Your task to perform on an android device: open app "Spotify: Music and Podcasts" Image 0: 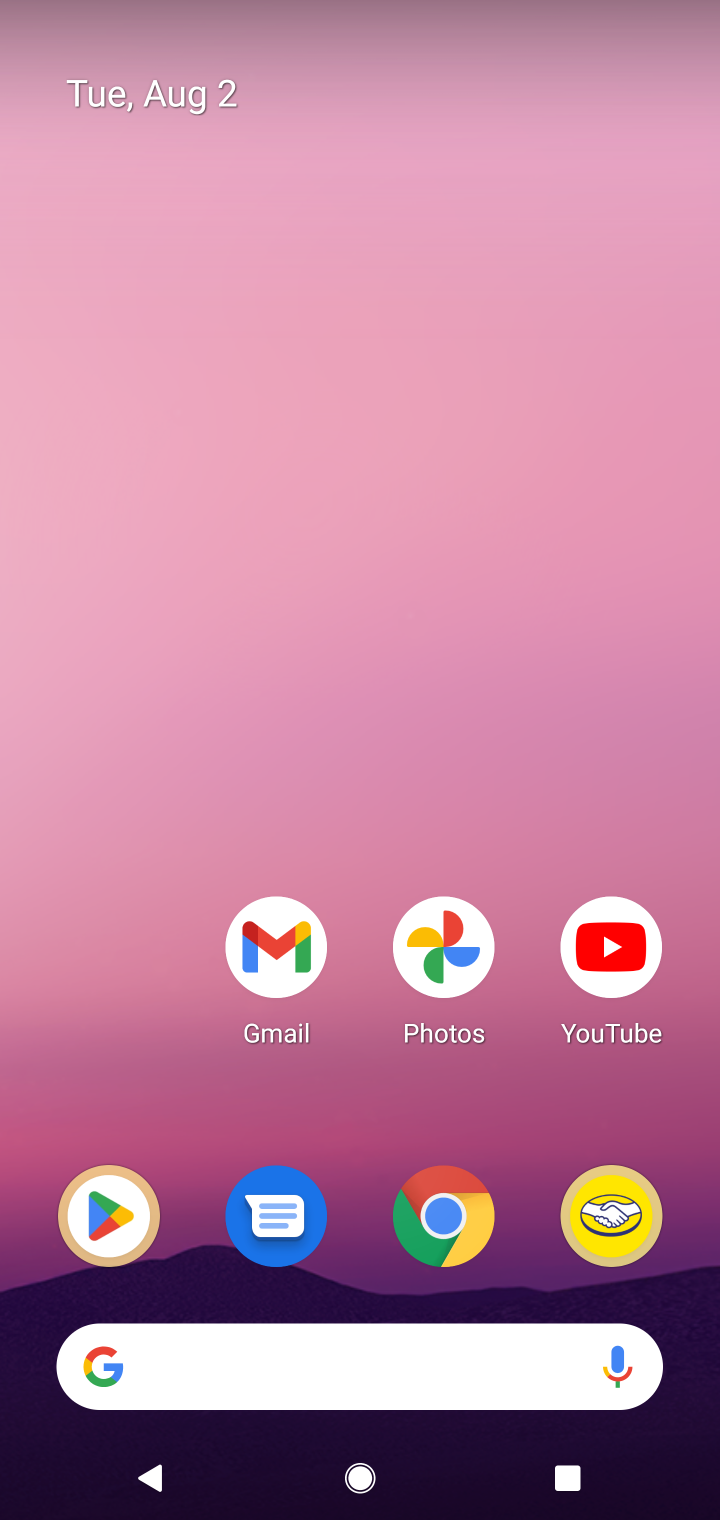
Step 0: click (129, 1224)
Your task to perform on an android device: open app "Spotify: Music and Podcasts" Image 1: 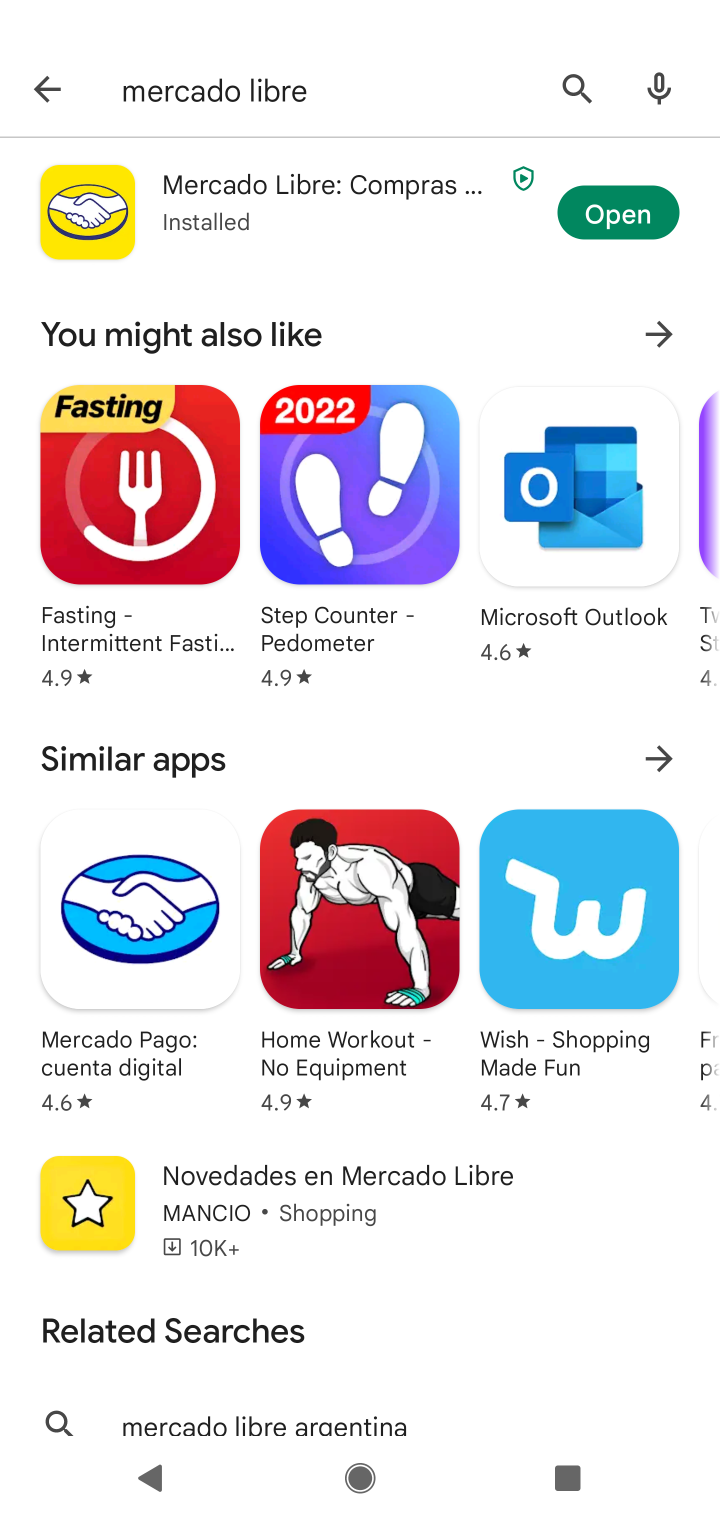
Step 1: click (575, 78)
Your task to perform on an android device: open app "Spotify: Music and Podcasts" Image 2: 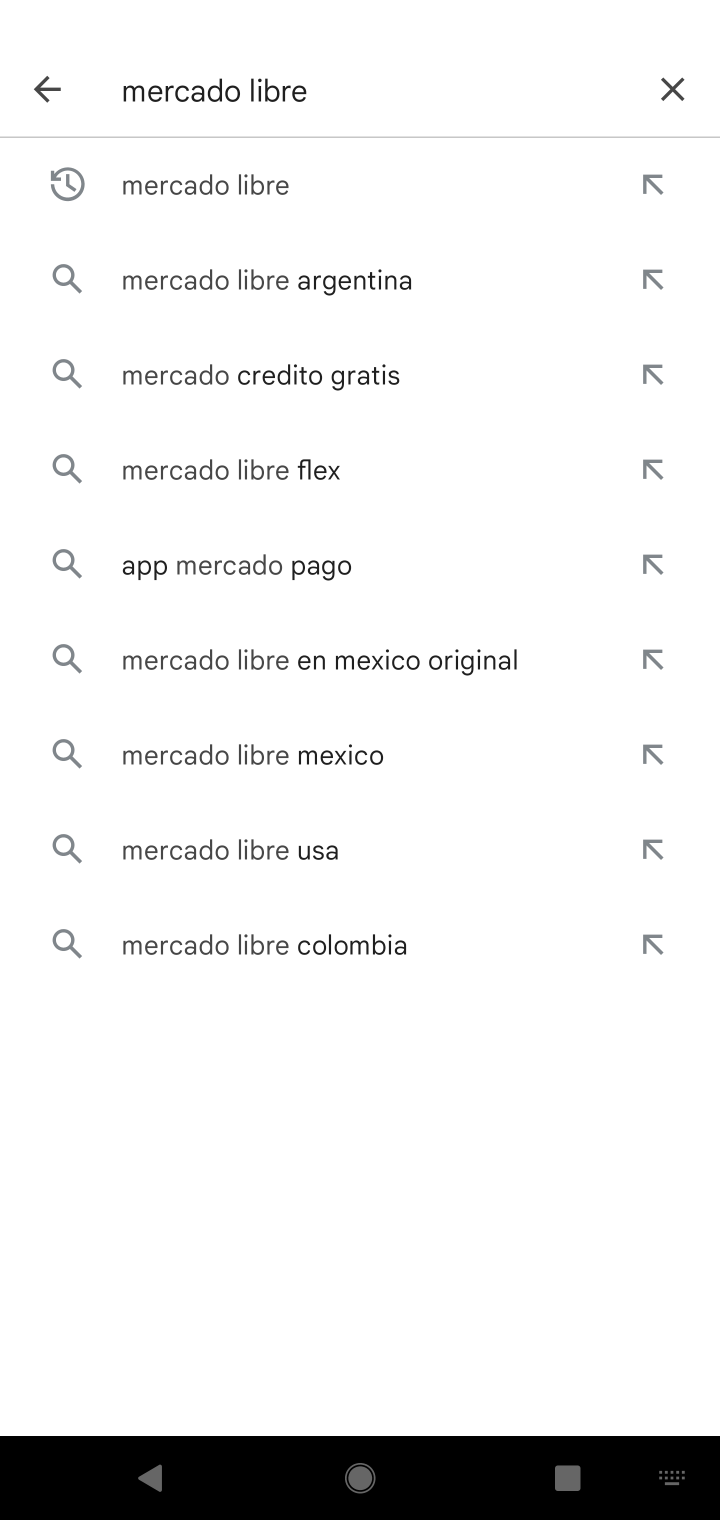
Step 2: click (652, 108)
Your task to perform on an android device: open app "Spotify: Music and Podcasts" Image 3: 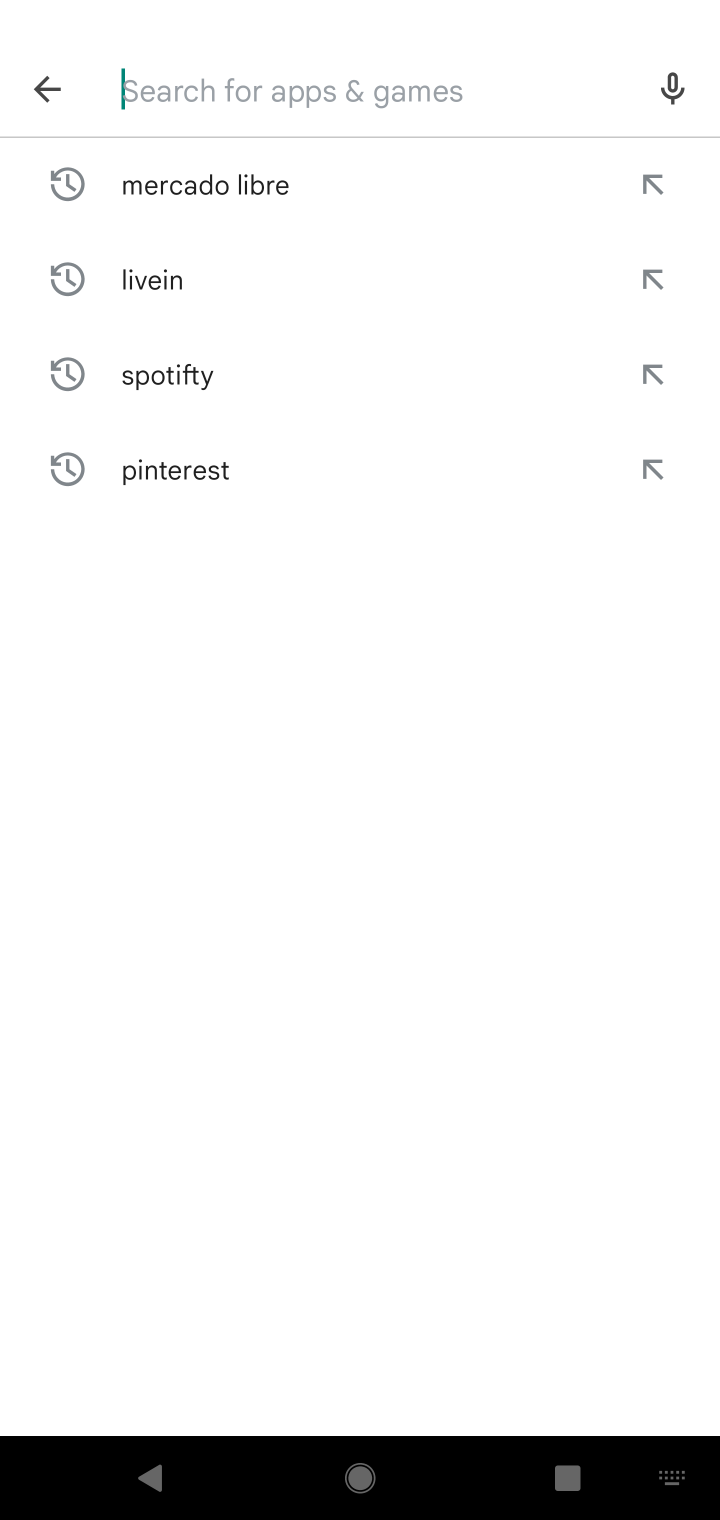
Step 3: type "spotify"
Your task to perform on an android device: open app "Spotify: Music and Podcasts" Image 4: 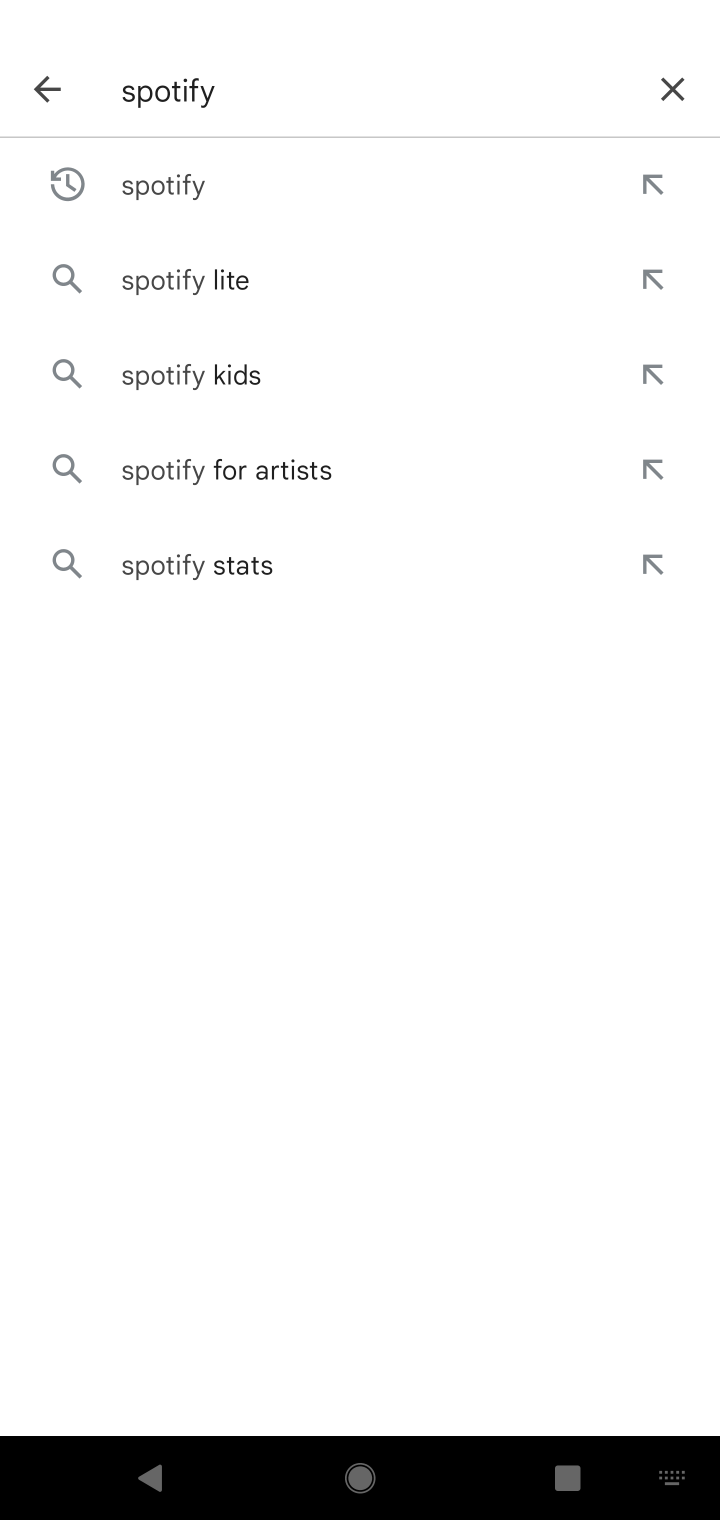
Step 4: click (368, 184)
Your task to perform on an android device: open app "Spotify: Music and Podcasts" Image 5: 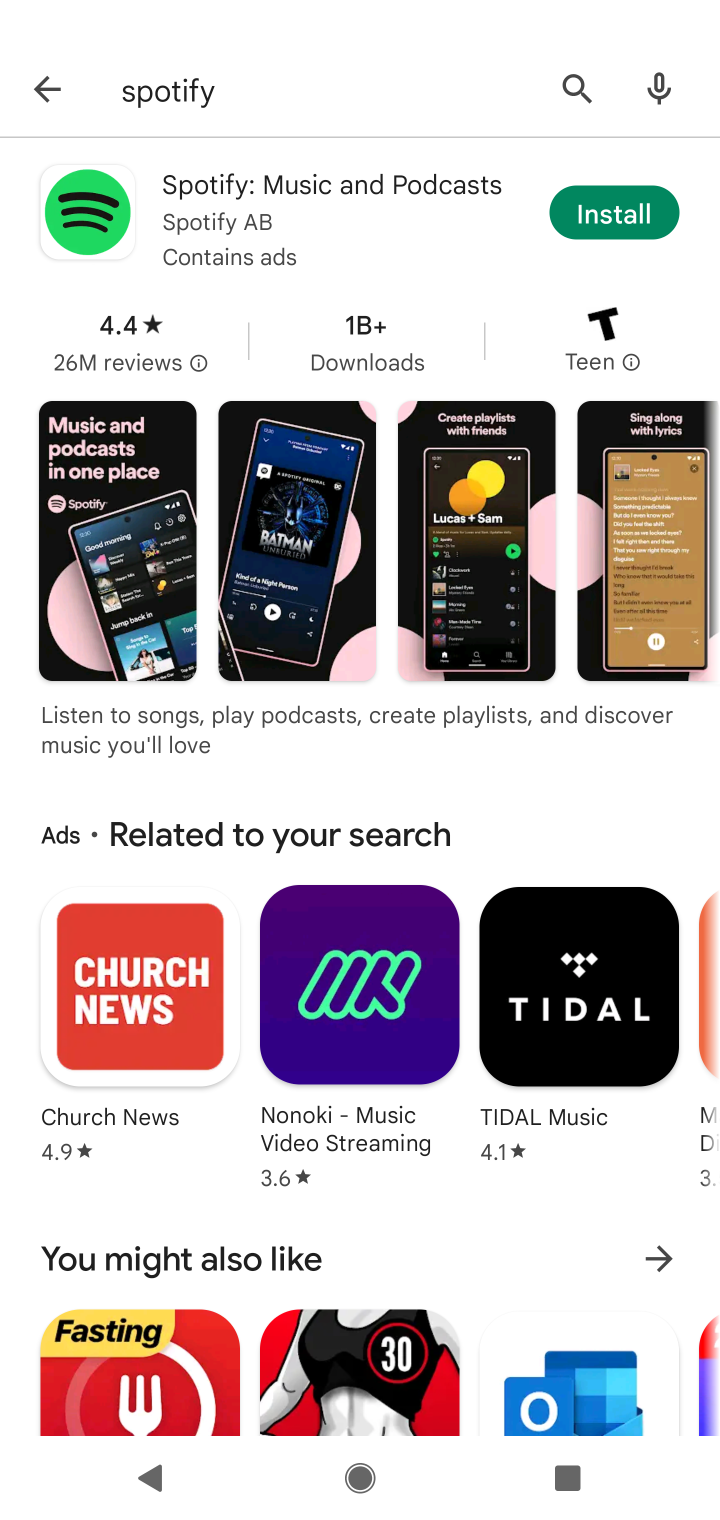
Step 5: click (637, 226)
Your task to perform on an android device: open app "Spotify: Music and Podcasts" Image 6: 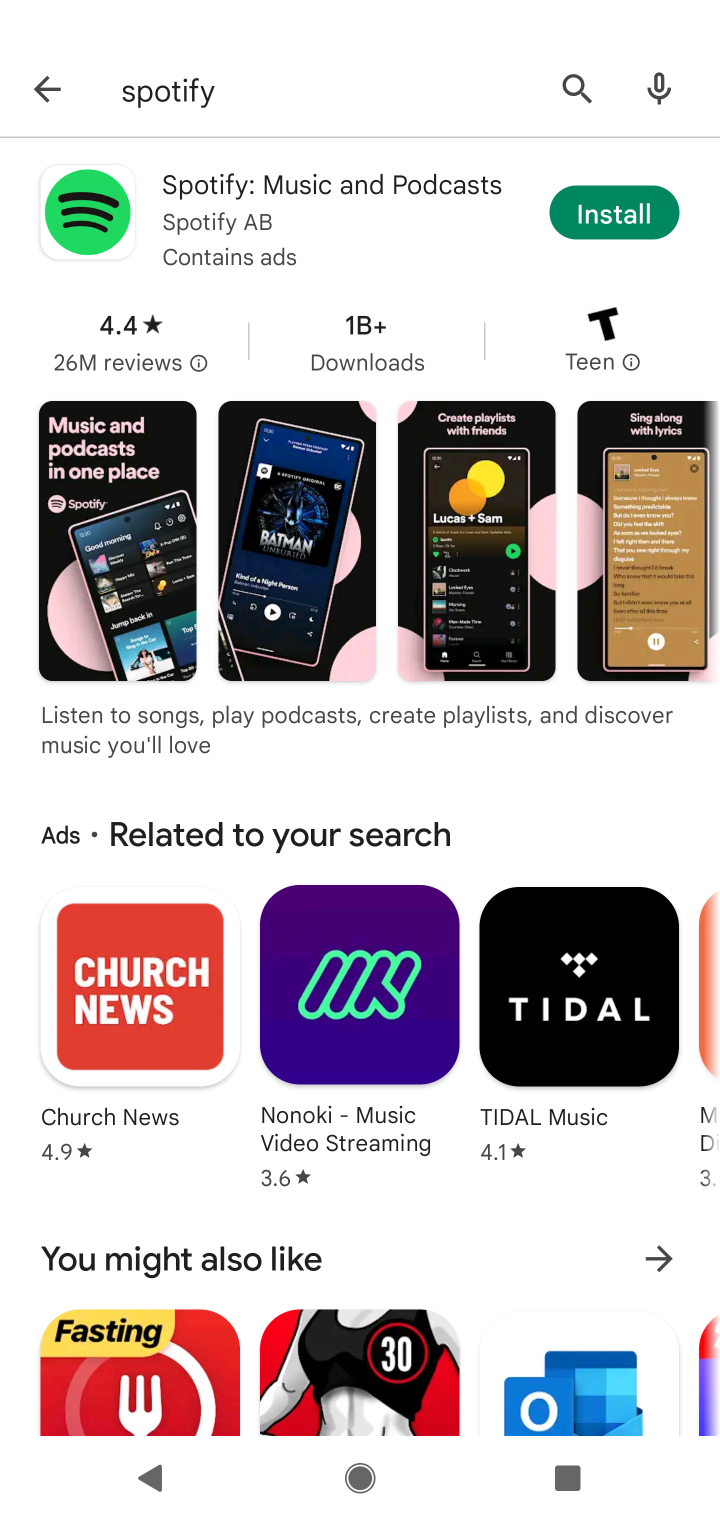
Step 6: task complete